Your task to perform on an android device: make emails show in primary in the gmail app Image 0: 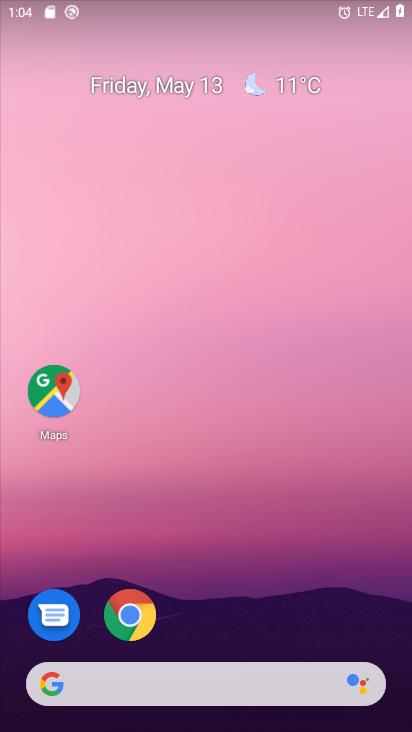
Step 0: drag from (303, 616) to (332, 58)
Your task to perform on an android device: make emails show in primary in the gmail app Image 1: 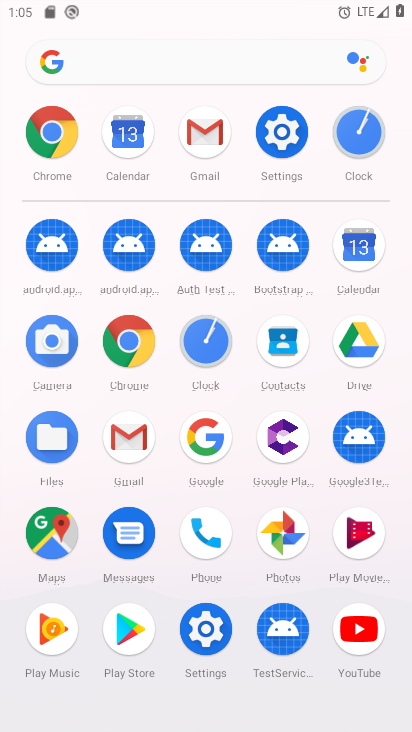
Step 1: click (205, 129)
Your task to perform on an android device: make emails show in primary in the gmail app Image 2: 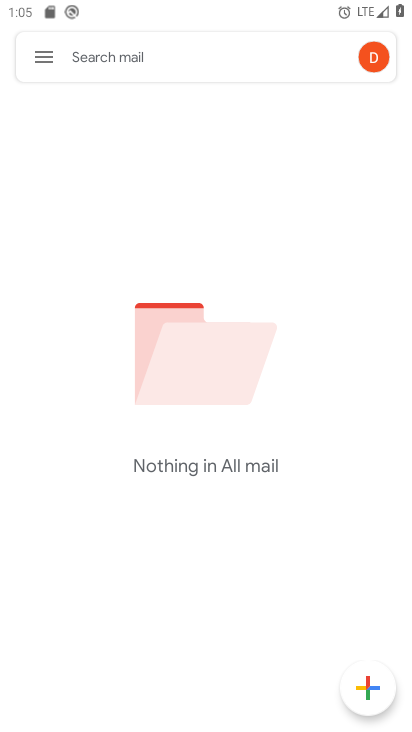
Step 2: click (49, 51)
Your task to perform on an android device: make emails show in primary in the gmail app Image 3: 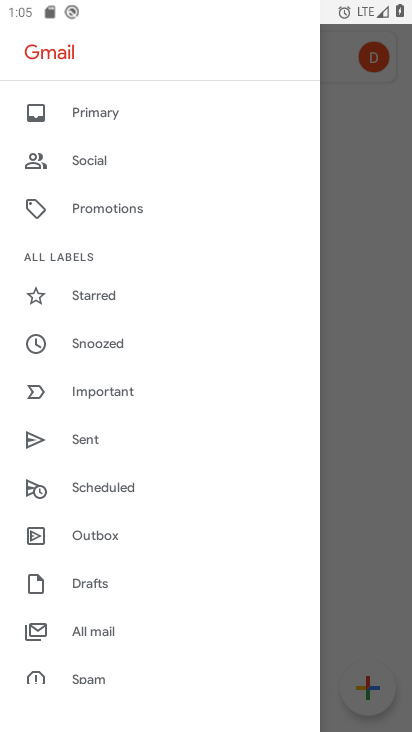
Step 3: drag from (129, 602) to (184, 103)
Your task to perform on an android device: make emails show in primary in the gmail app Image 4: 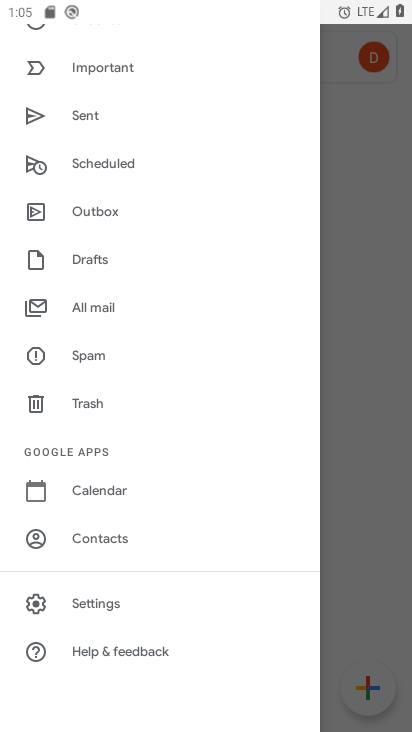
Step 4: click (132, 602)
Your task to perform on an android device: make emails show in primary in the gmail app Image 5: 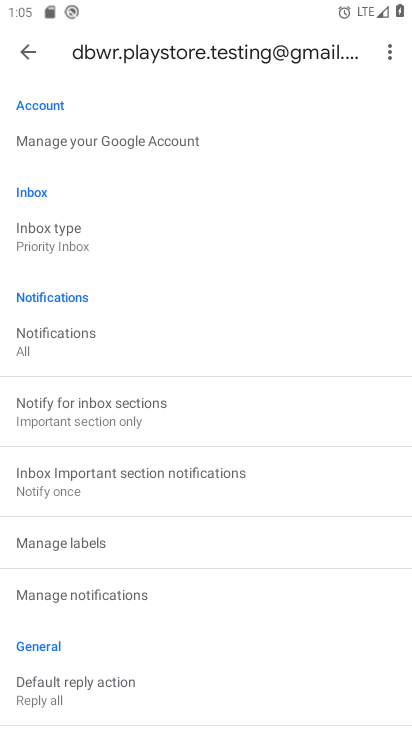
Step 5: click (44, 229)
Your task to perform on an android device: make emails show in primary in the gmail app Image 6: 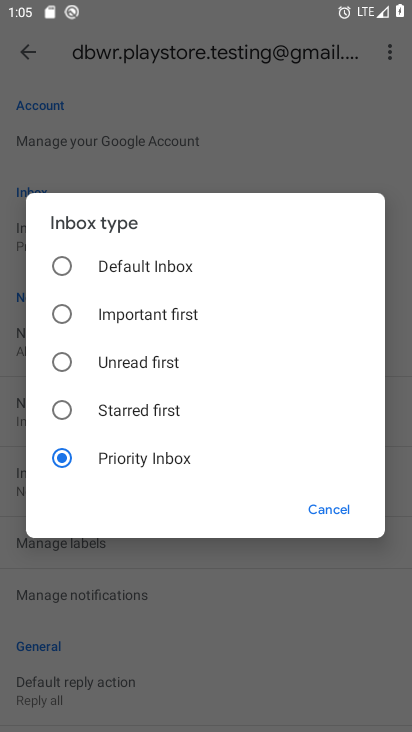
Step 6: click (64, 255)
Your task to perform on an android device: make emails show in primary in the gmail app Image 7: 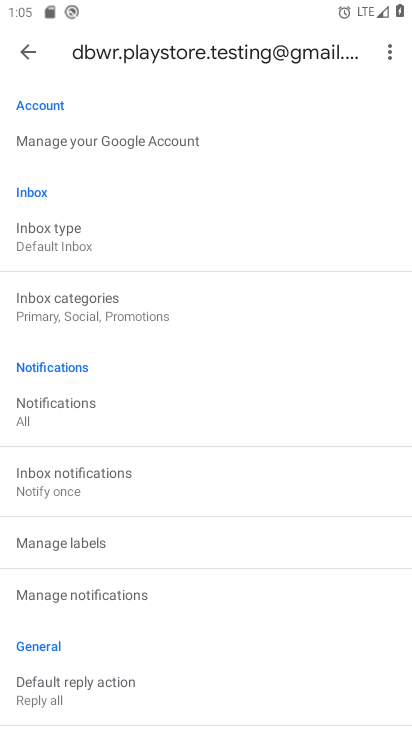
Step 7: click (119, 303)
Your task to perform on an android device: make emails show in primary in the gmail app Image 8: 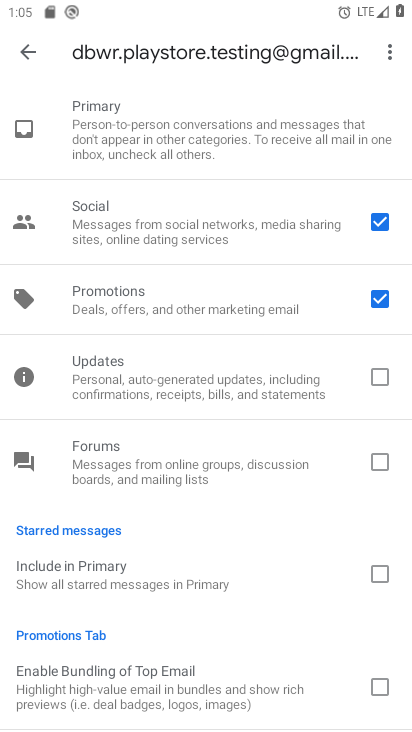
Step 8: click (388, 298)
Your task to perform on an android device: make emails show in primary in the gmail app Image 9: 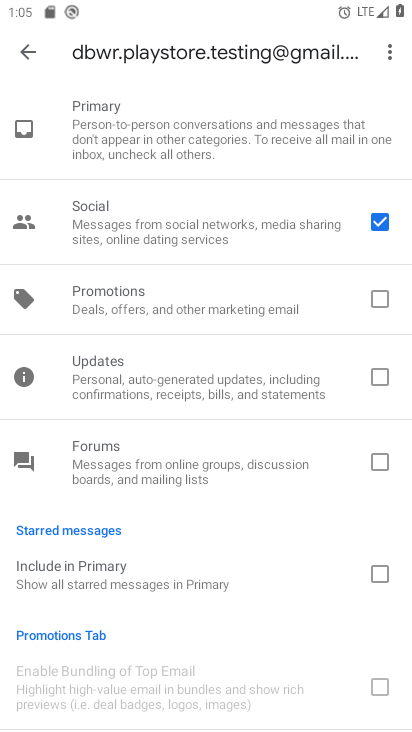
Step 9: click (383, 213)
Your task to perform on an android device: make emails show in primary in the gmail app Image 10: 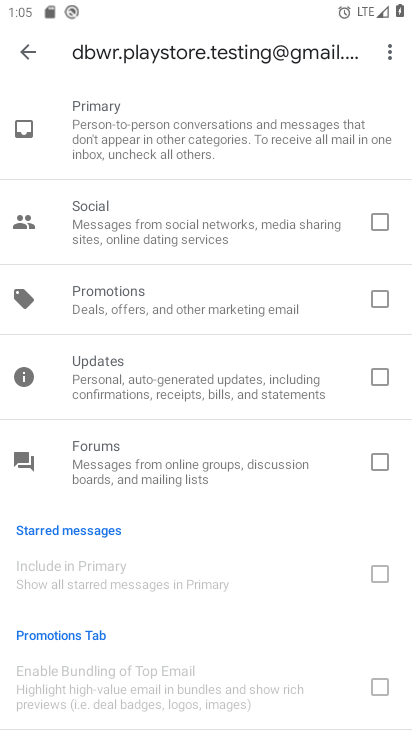
Step 10: click (32, 52)
Your task to perform on an android device: make emails show in primary in the gmail app Image 11: 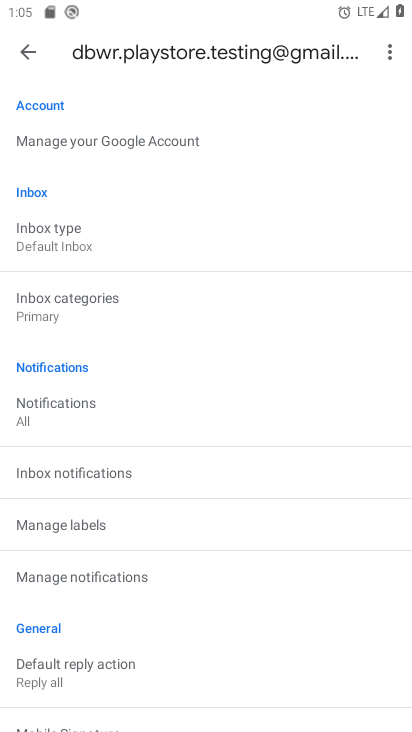
Step 11: task complete